Your task to perform on an android device: toggle javascript in the chrome app Image 0: 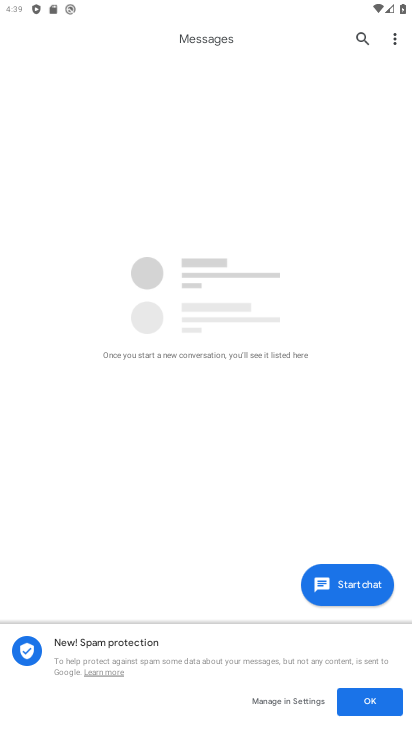
Step 0: press back button
Your task to perform on an android device: toggle javascript in the chrome app Image 1: 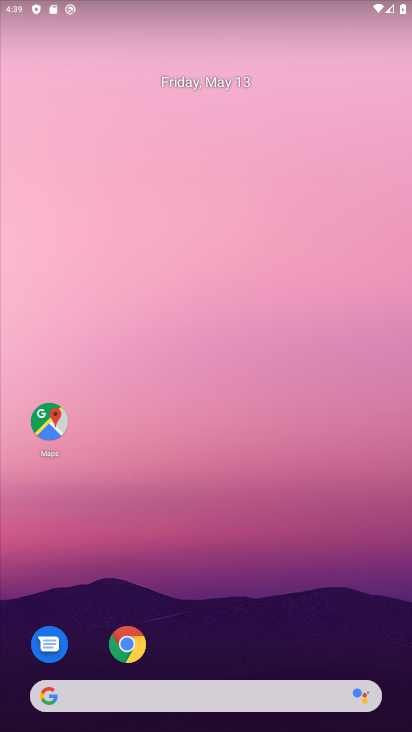
Step 1: click (131, 648)
Your task to perform on an android device: toggle javascript in the chrome app Image 2: 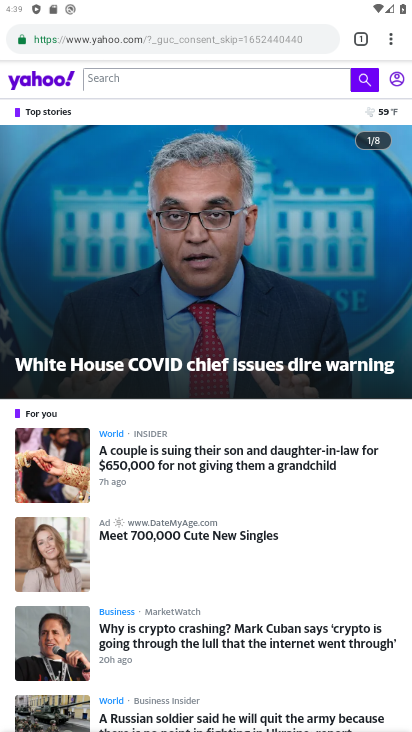
Step 2: click (391, 31)
Your task to perform on an android device: toggle javascript in the chrome app Image 3: 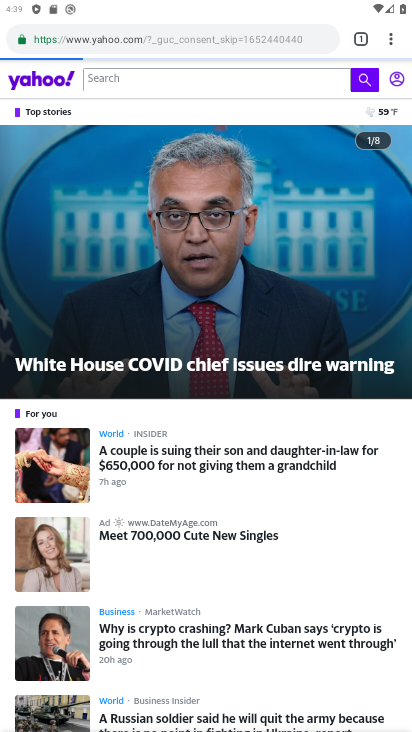
Step 3: drag from (388, 32) to (237, 436)
Your task to perform on an android device: toggle javascript in the chrome app Image 4: 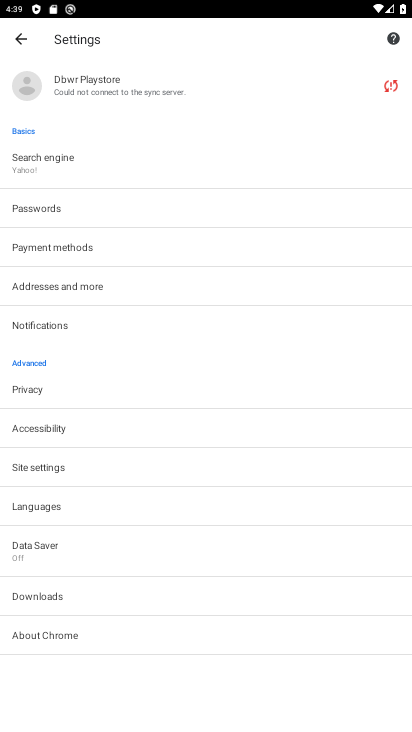
Step 4: click (61, 464)
Your task to perform on an android device: toggle javascript in the chrome app Image 5: 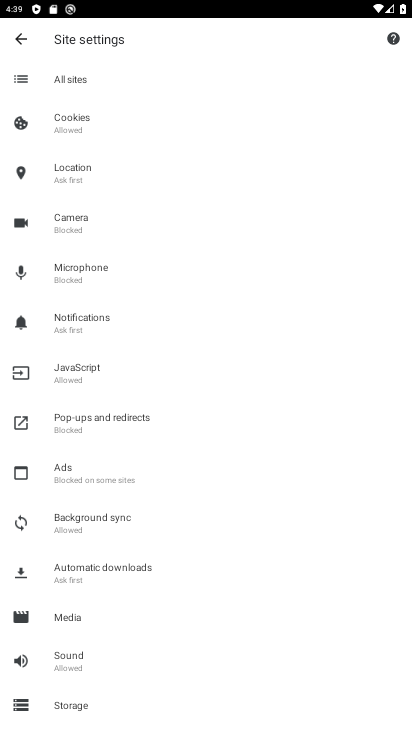
Step 5: click (89, 371)
Your task to perform on an android device: toggle javascript in the chrome app Image 6: 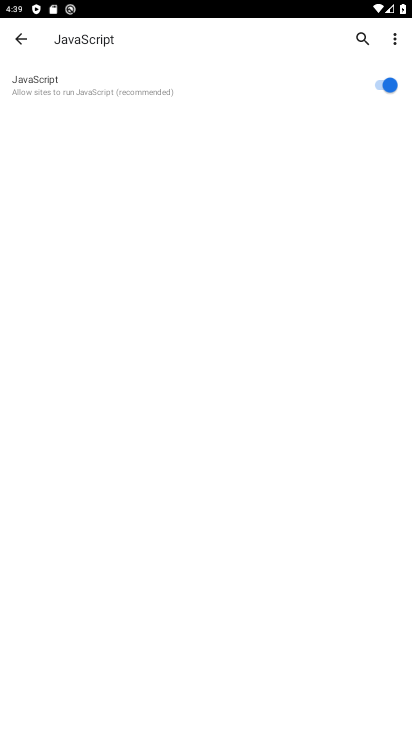
Step 6: click (390, 91)
Your task to perform on an android device: toggle javascript in the chrome app Image 7: 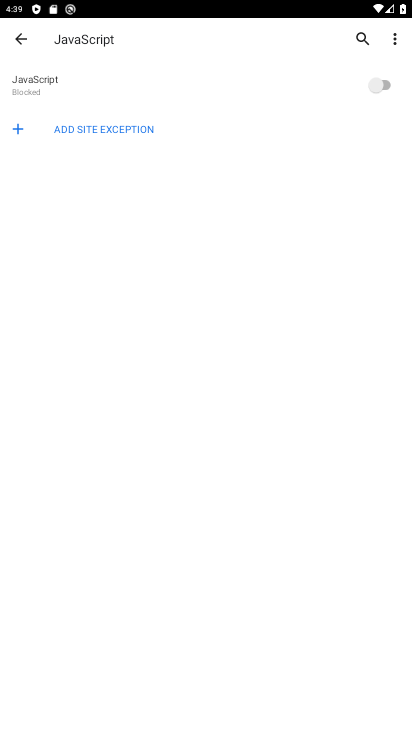
Step 7: task complete